Your task to perform on an android device: Open the phone app and click the voicemail tab. Image 0: 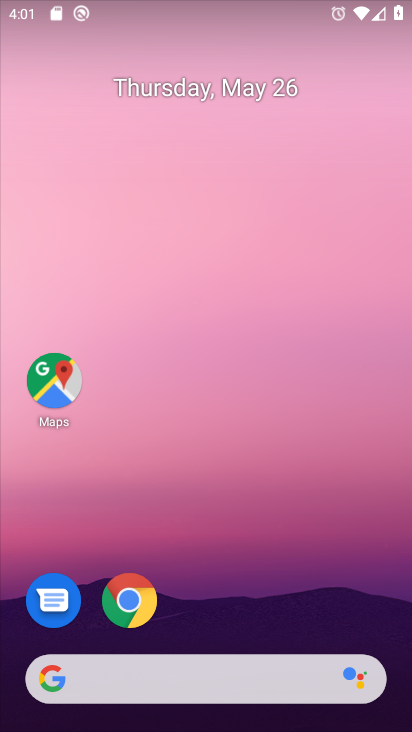
Step 0: drag from (237, 561) to (347, 199)
Your task to perform on an android device: Open the phone app and click the voicemail tab. Image 1: 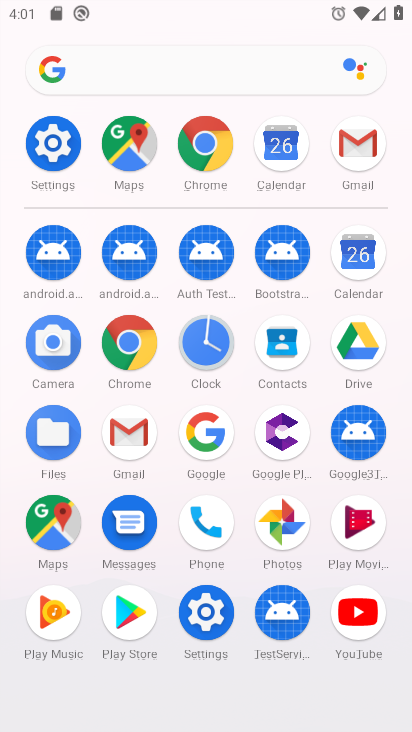
Step 1: click (211, 536)
Your task to perform on an android device: Open the phone app and click the voicemail tab. Image 2: 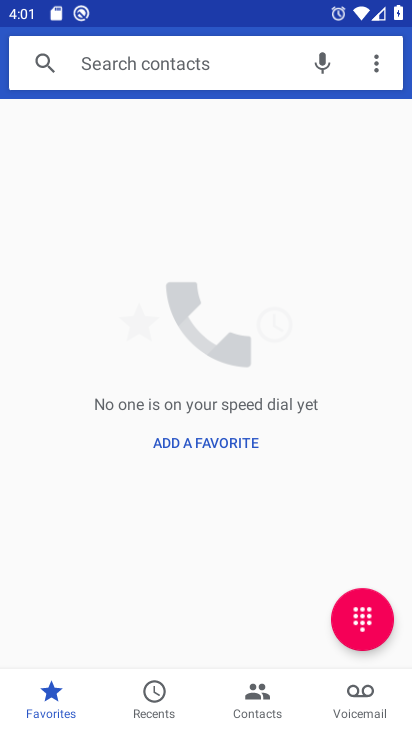
Step 2: click (376, 694)
Your task to perform on an android device: Open the phone app and click the voicemail tab. Image 3: 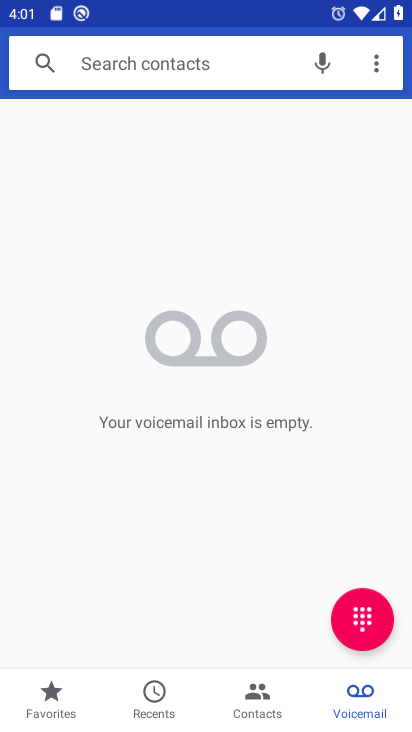
Step 3: task complete